Your task to perform on an android device: turn on airplane mode Image 0: 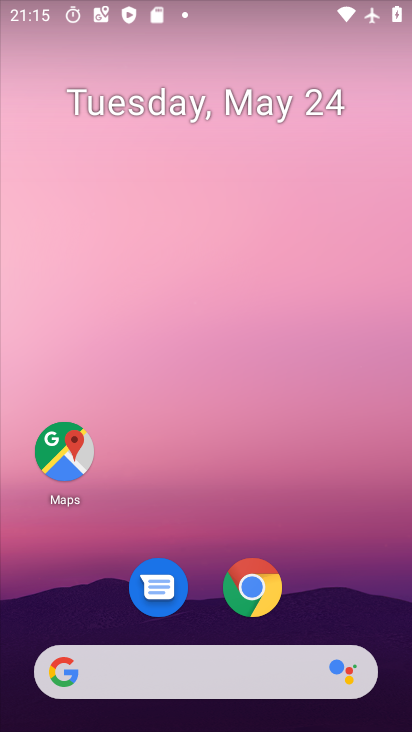
Step 0: drag from (336, 581) to (261, 31)
Your task to perform on an android device: turn on airplane mode Image 1: 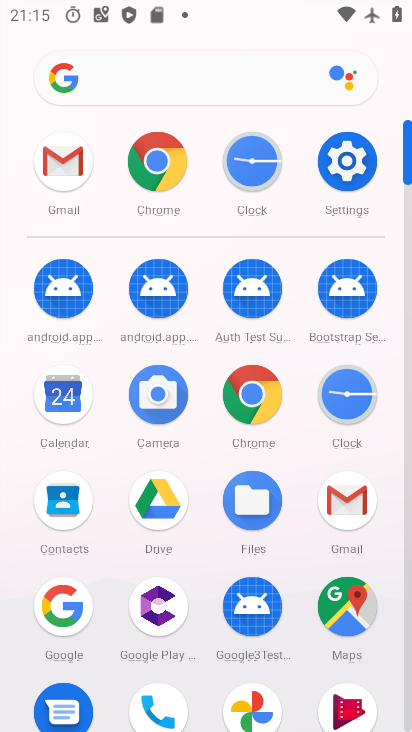
Step 1: click (0, 587)
Your task to perform on an android device: turn on airplane mode Image 2: 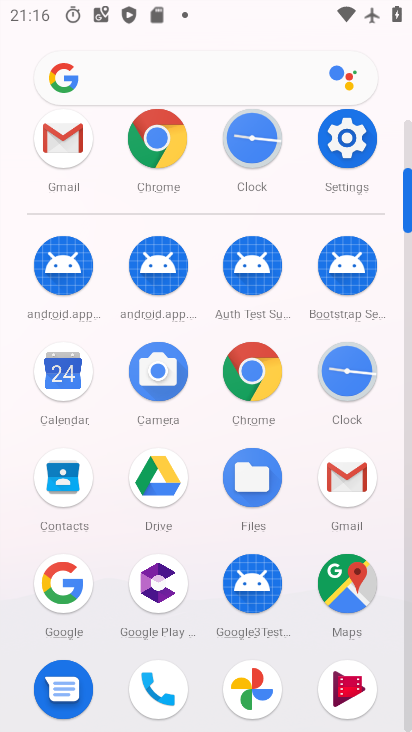
Step 2: drag from (26, 621) to (28, 324)
Your task to perform on an android device: turn on airplane mode Image 3: 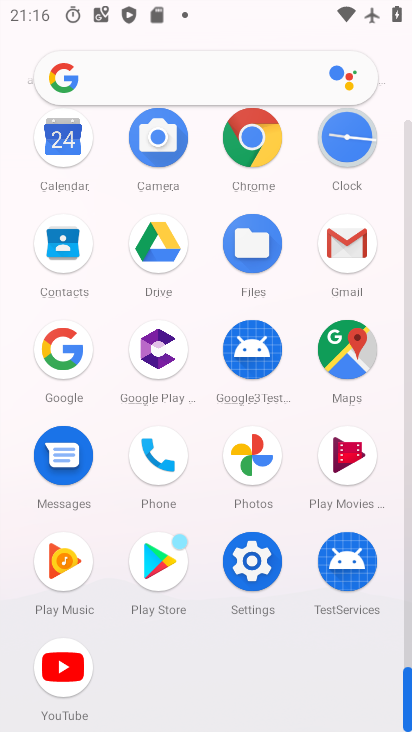
Step 3: click (249, 559)
Your task to perform on an android device: turn on airplane mode Image 4: 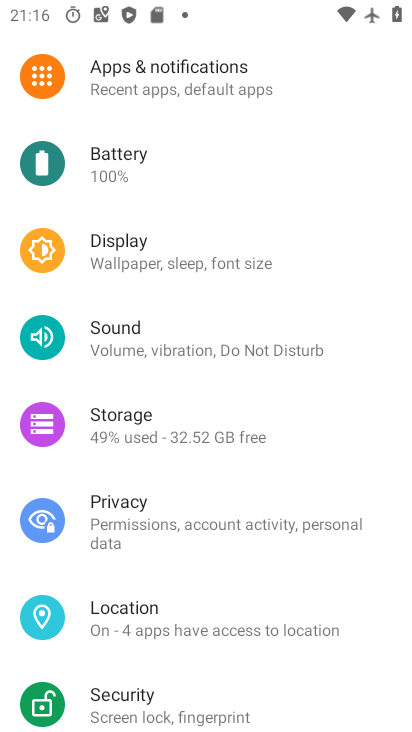
Step 4: drag from (281, 167) to (284, 526)
Your task to perform on an android device: turn on airplane mode Image 5: 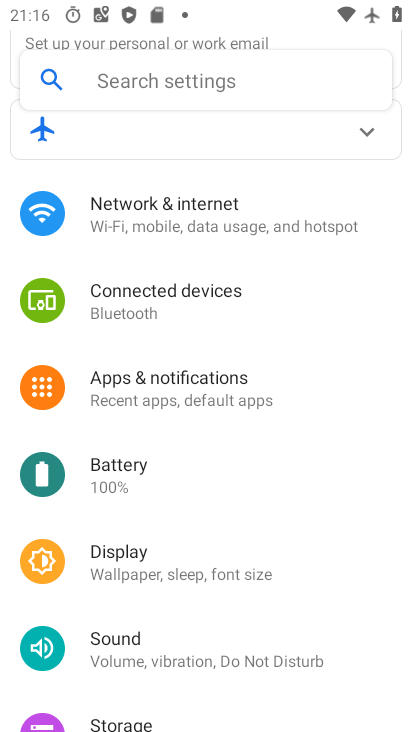
Step 5: click (235, 211)
Your task to perform on an android device: turn on airplane mode Image 6: 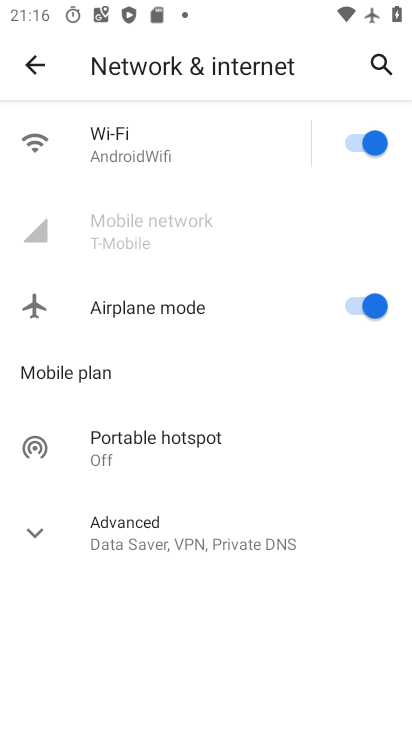
Step 6: task complete